Your task to perform on an android device: turn off location history Image 0: 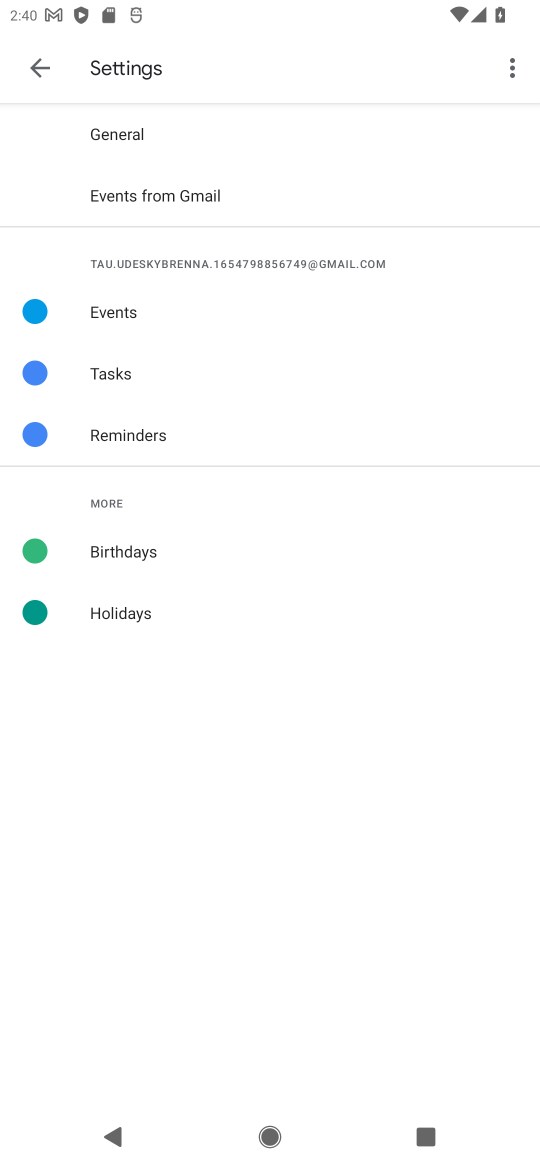
Step 0: drag from (273, 859) to (376, 214)
Your task to perform on an android device: turn off location history Image 1: 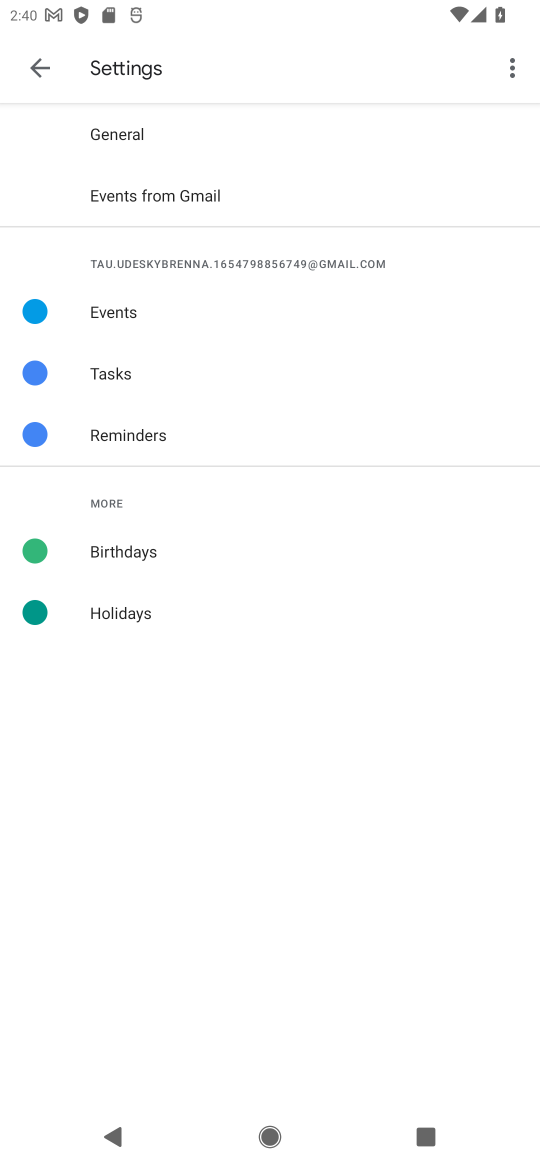
Step 1: drag from (292, 547) to (303, 1042)
Your task to perform on an android device: turn off location history Image 2: 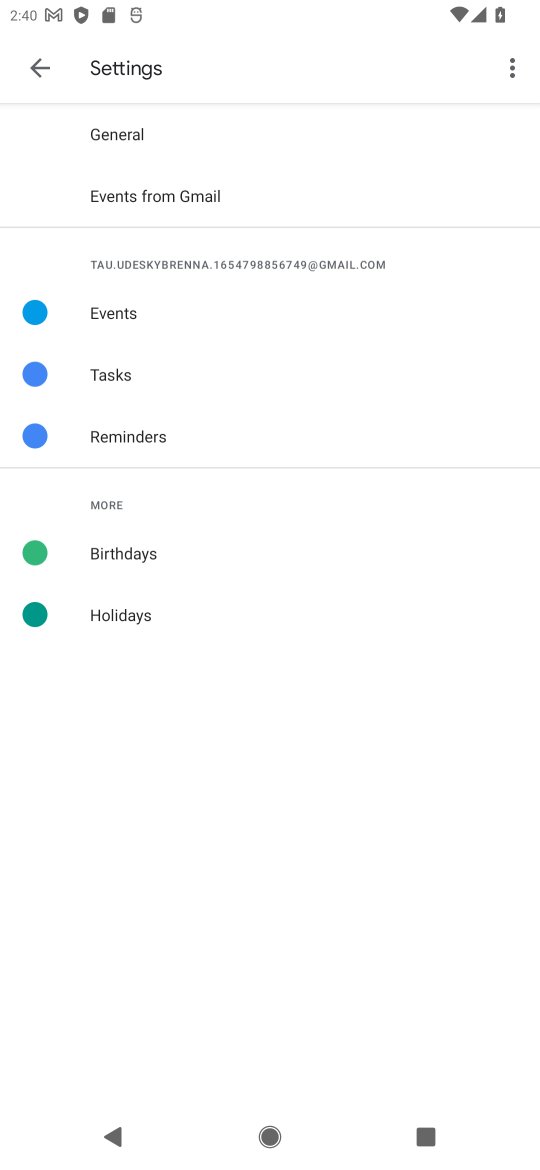
Step 2: press home button
Your task to perform on an android device: turn off location history Image 3: 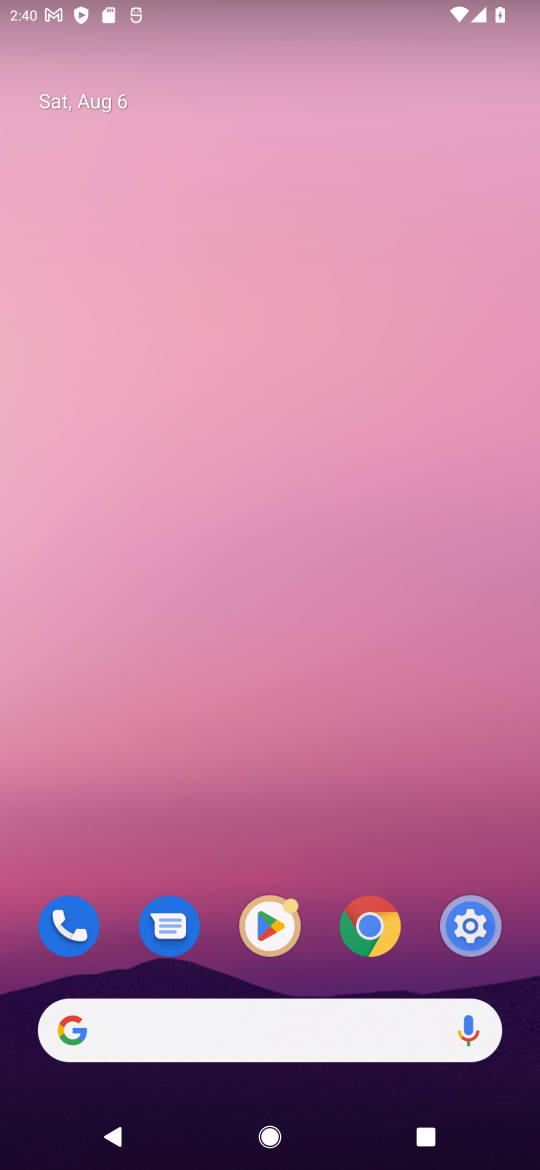
Step 3: drag from (314, 921) to (486, 86)
Your task to perform on an android device: turn off location history Image 4: 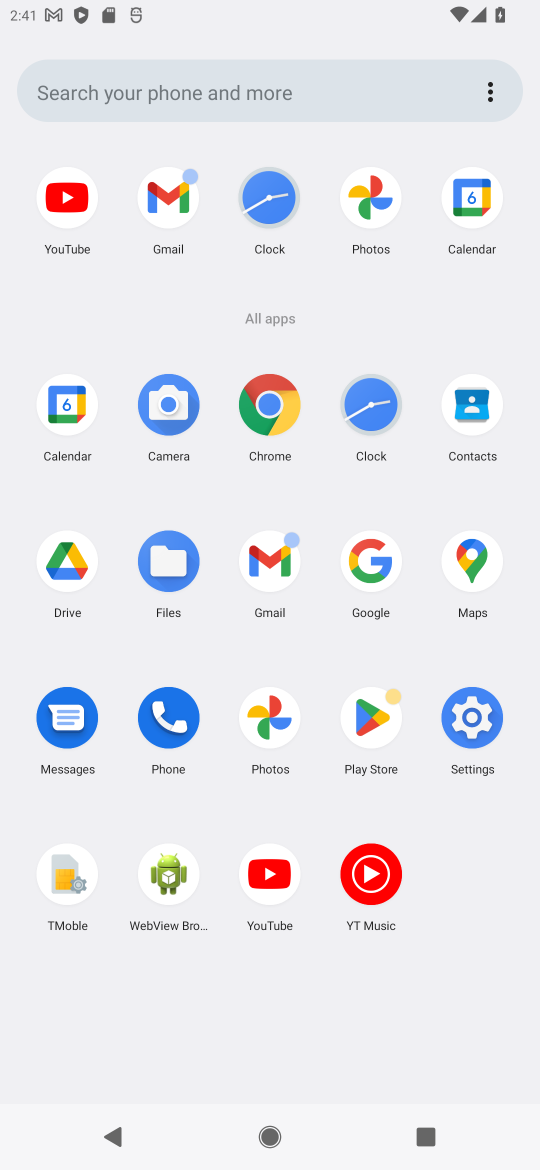
Step 4: click (511, 715)
Your task to perform on an android device: turn off location history Image 5: 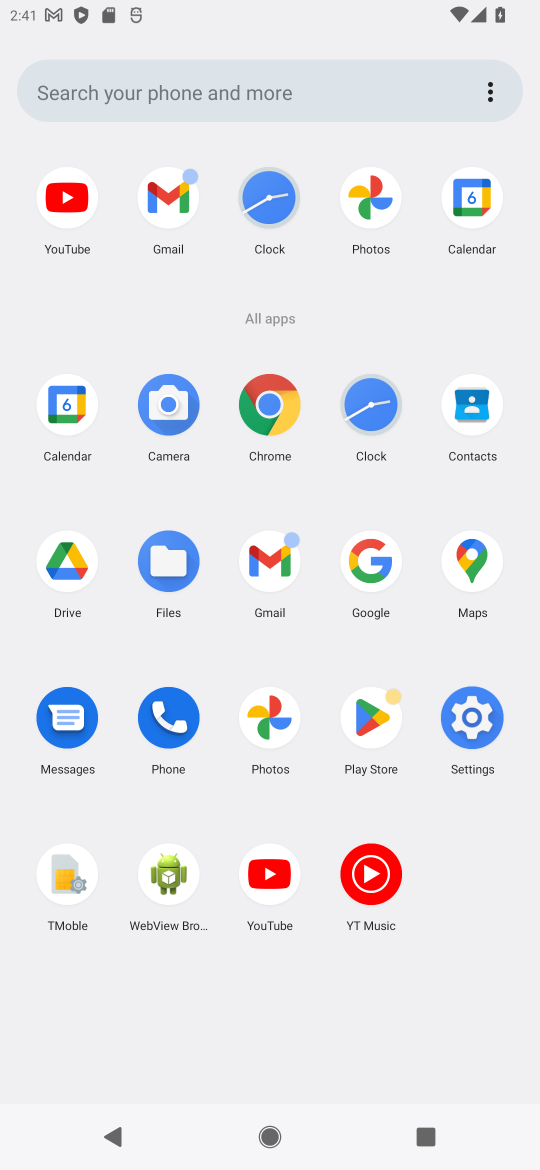
Step 5: click (501, 713)
Your task to perform on an android device: turn off location history Image 6: 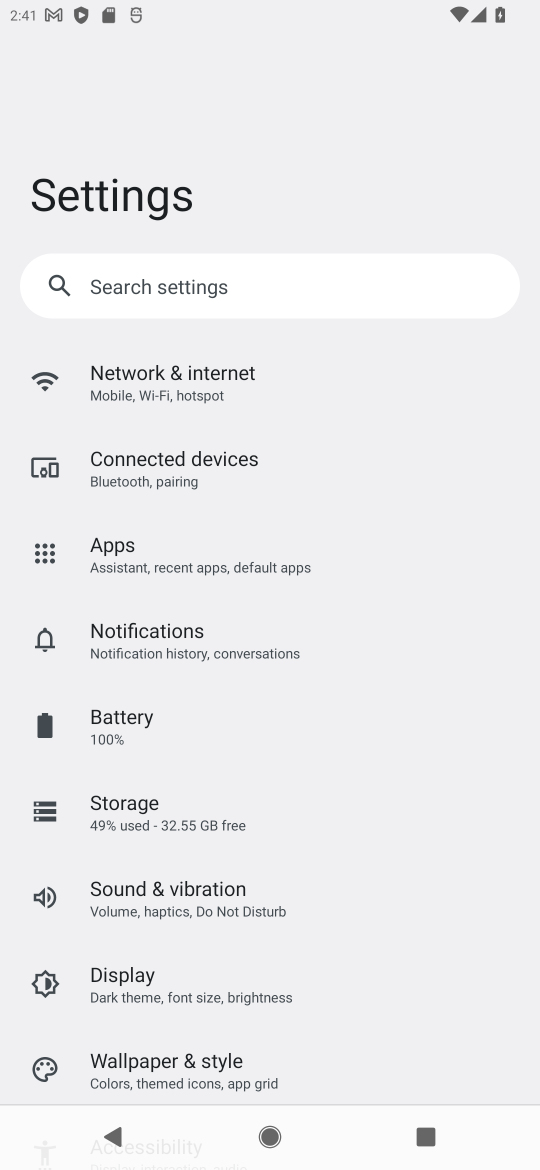
Step 6: drag from (477, 733) to (493, 377)
Your task to perform on an android device: turn off location history Image 7: 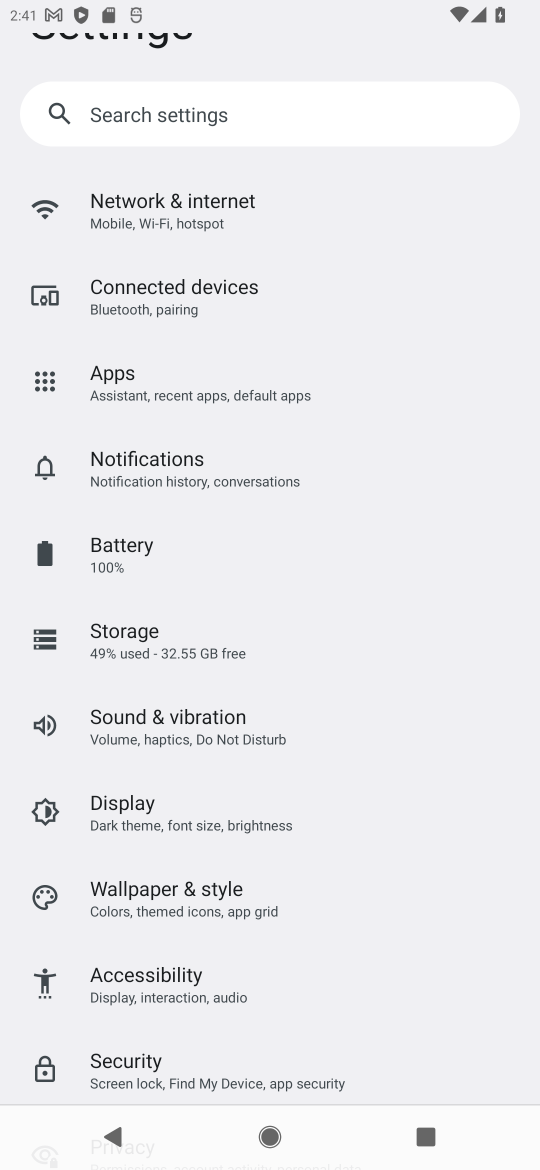
Step 7: drag from (274, 717) to (305, 380)
Your task to perform on an android device: turn off location history Image 8: 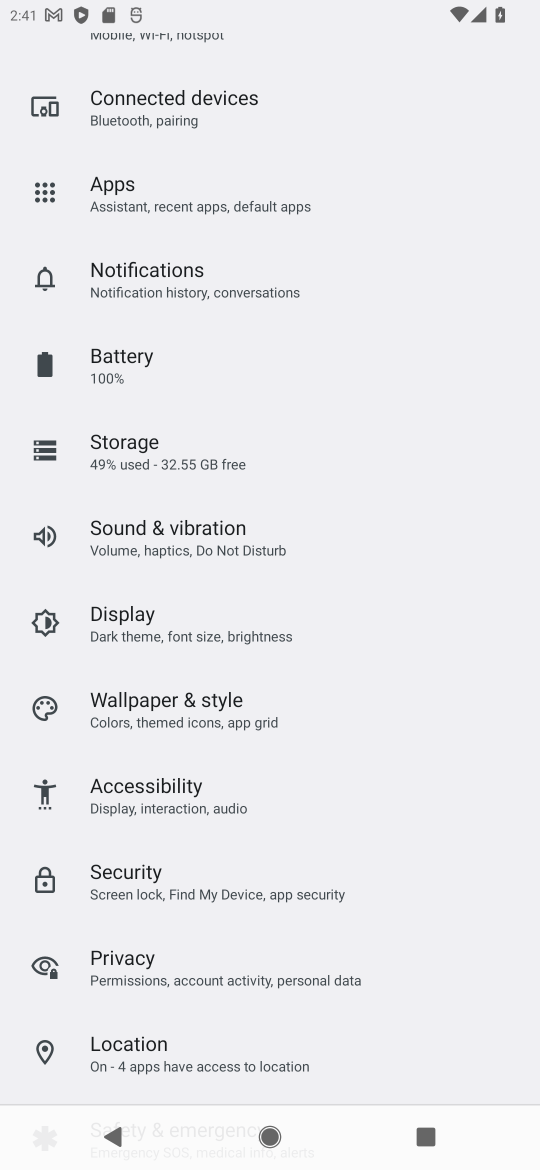
Step 8: click (150, 1066)
Your task to perform on an android device: turn off location history Image 9: 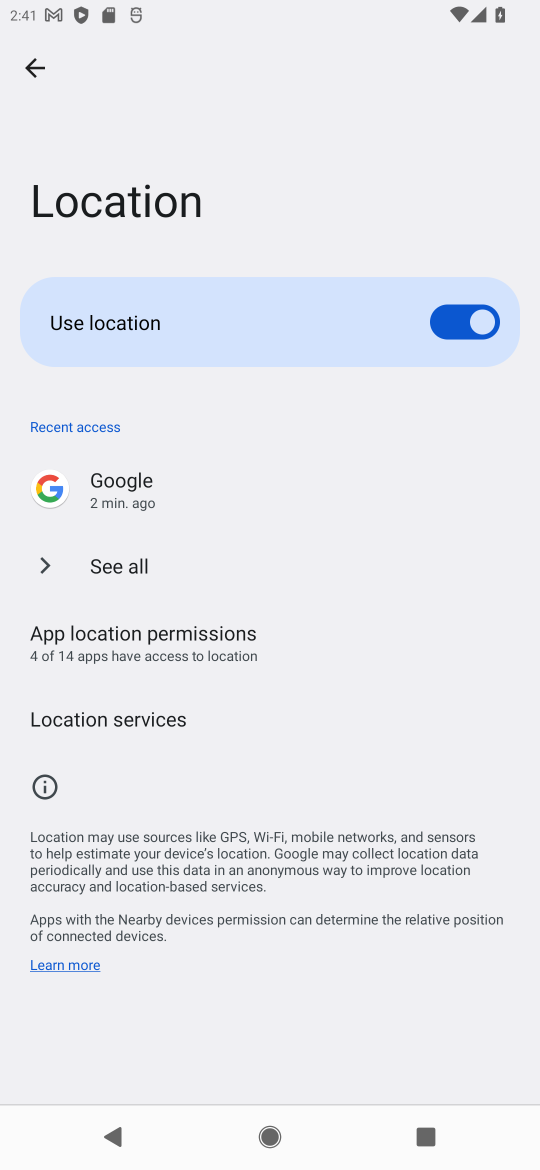
Step 9: click (162, 722)
Your task to perform on an android device: turn off location history Image 10: 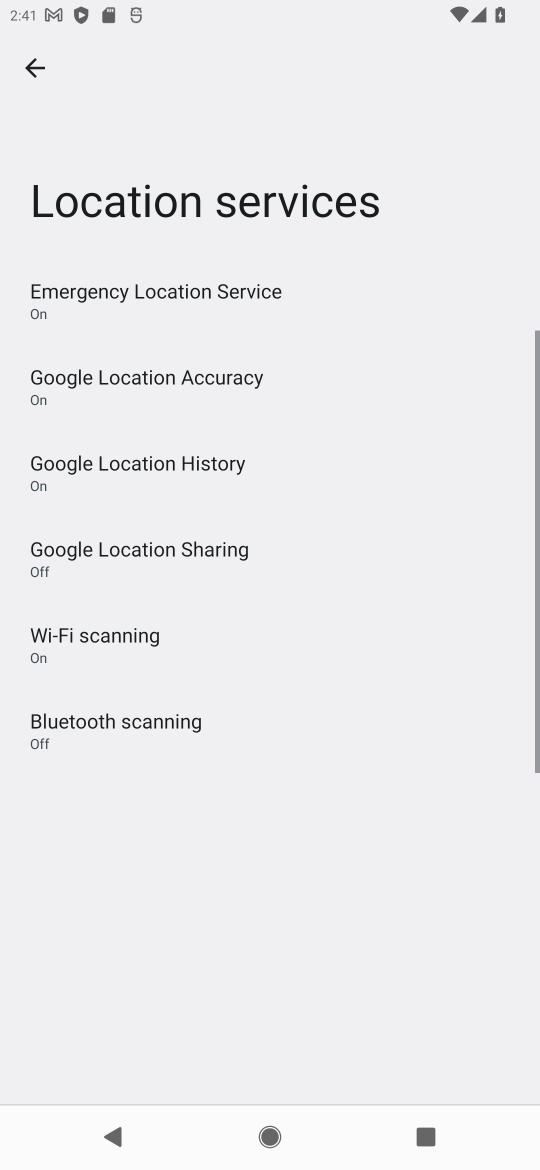
Step 10: click (159, 469)
Your task to perform on an android device: turn off location history Image 11: 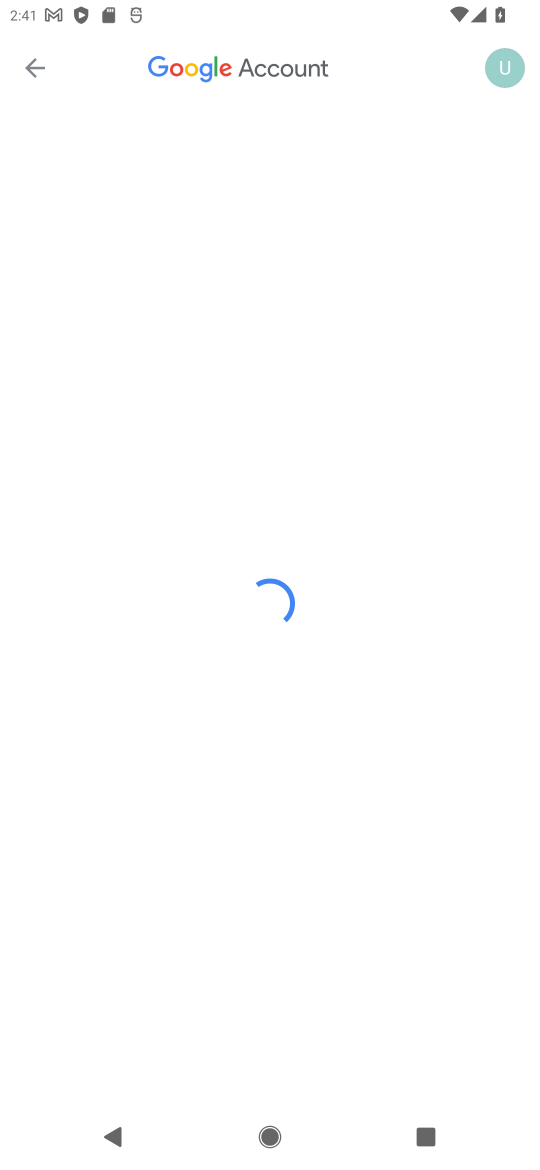
Step 11: drag from (344, 361) to (428, 834)
Your task to perform on an android device: turn off location history Image 12: 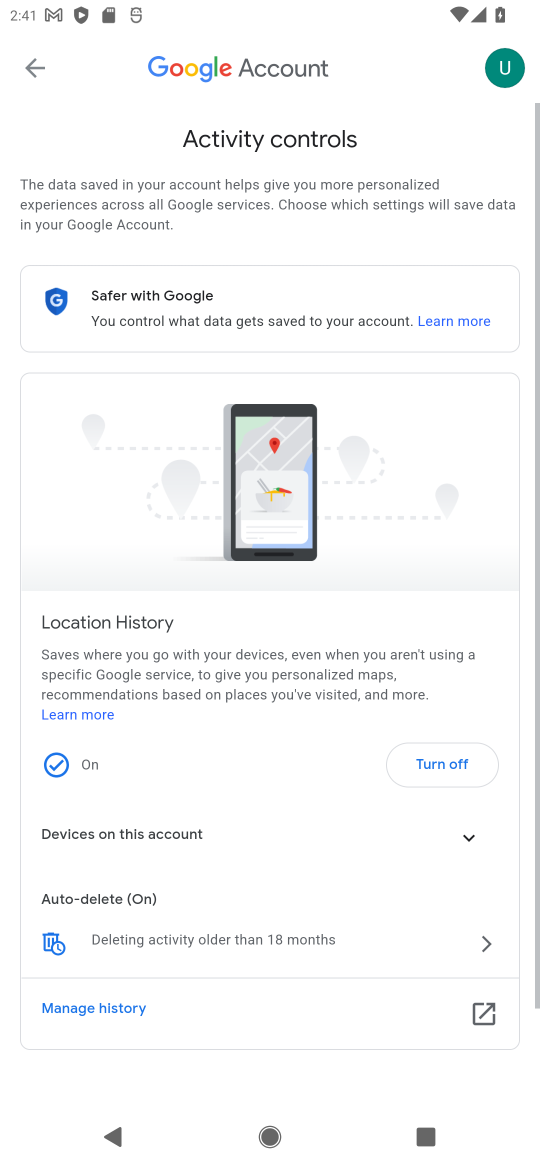
Step 12: drag from (261, 692) to (336, 391)
Your task to perform on an android device: turn off location history Image 13: 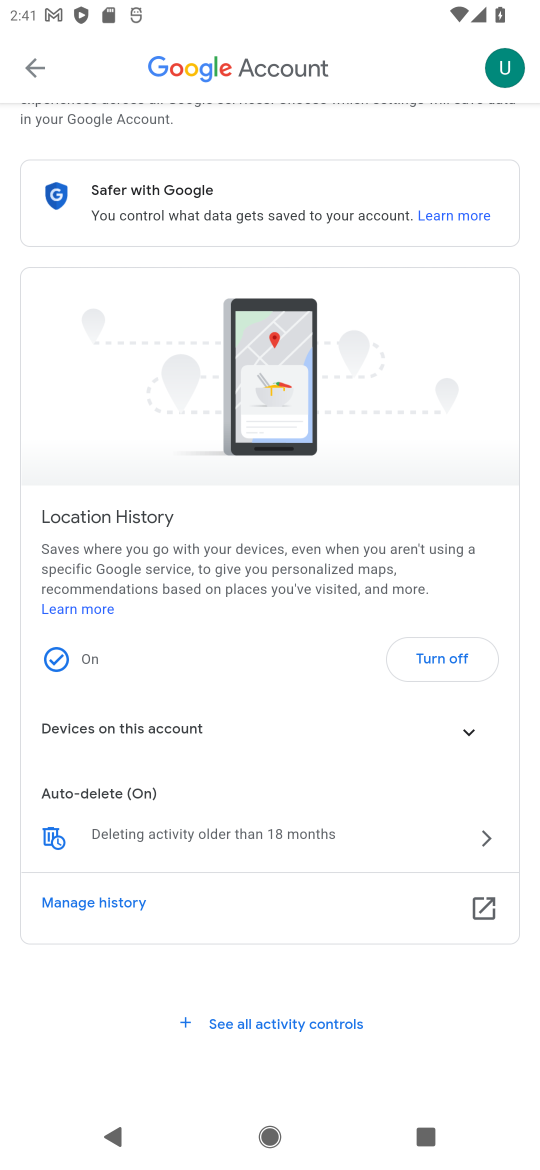
Step 13: drag from (300, 750) to (364, 379)
Your task to perform on an android device: turn off location history Image 14: 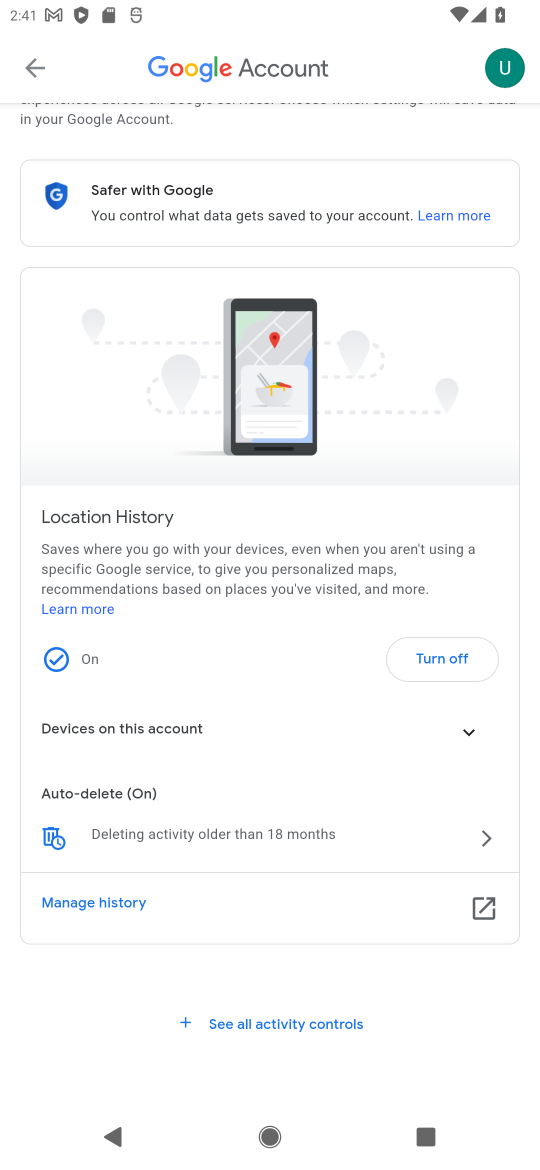
Step 14: click (486, 667)
Your task to perform on an android device: turn off location history Image 15: 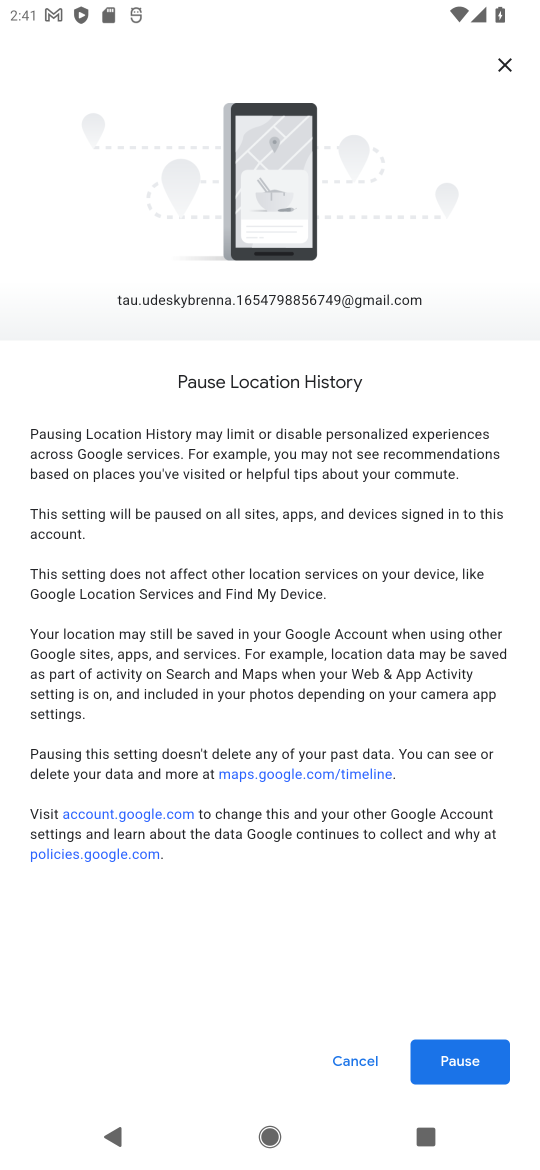
Step 15: drag from (325, 902) to (409, 149)
Your task to perform on an android device: turn off location history Image 16: 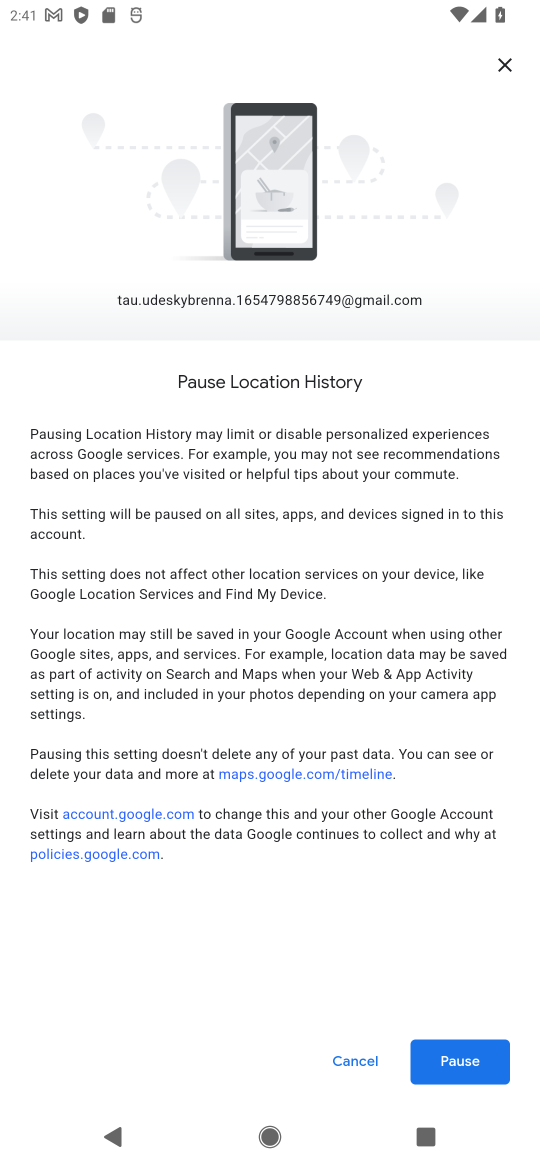
Step 16: click (474, 1068)
Your task to perform on an android device: turn off location history Image 17: 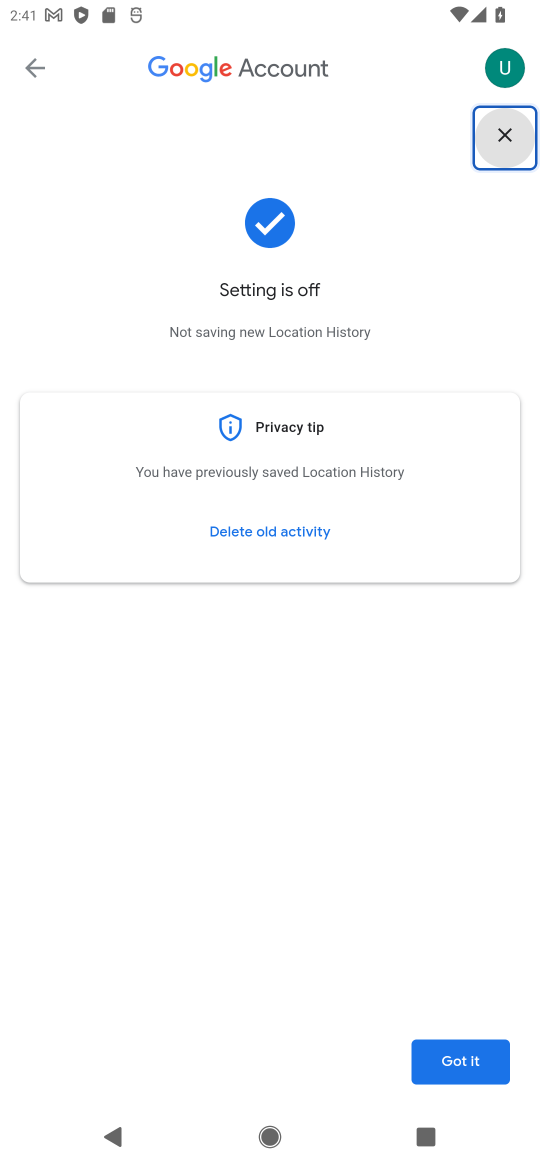
Step 17: click (480, 1057)
Your task to perform on an android device: turn off location history Image 18: 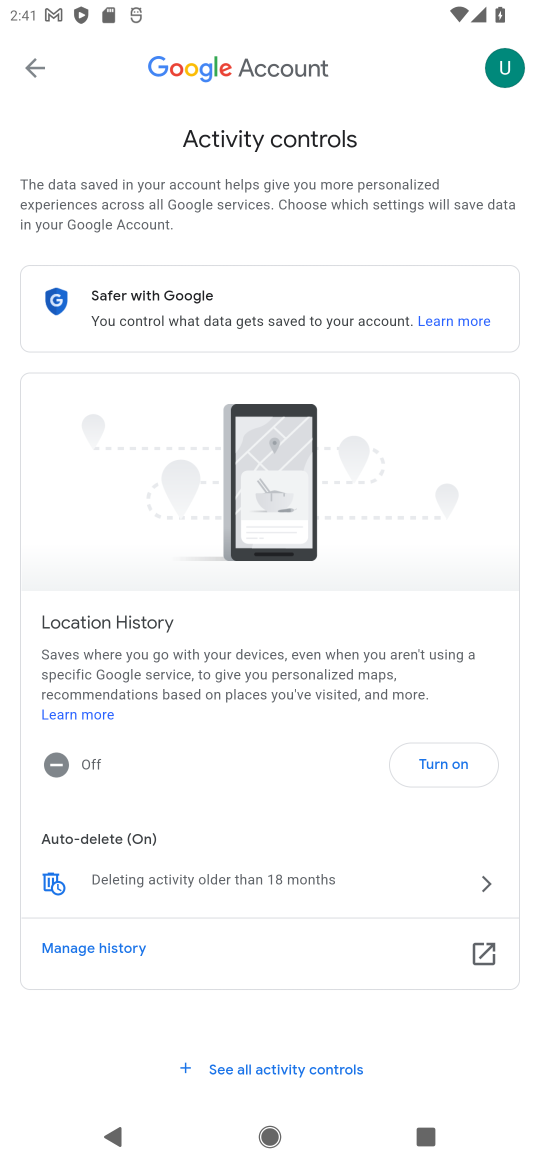
Step 18: task complete